Your task to perform on an android device: Open network settings Image 0: 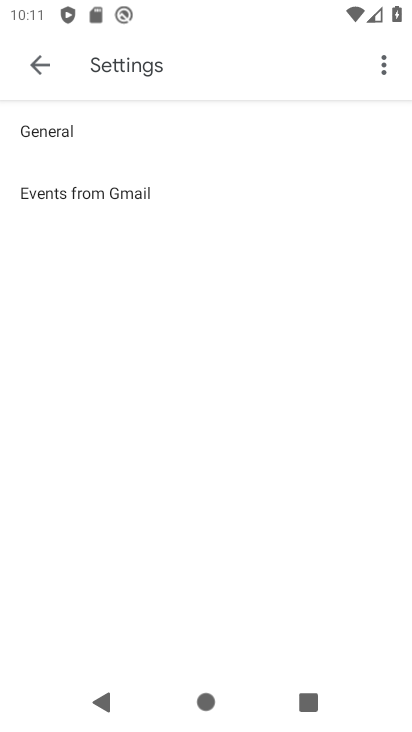
Step 0: press home button
Your task to perform on an android device: Open network settings Image 1: 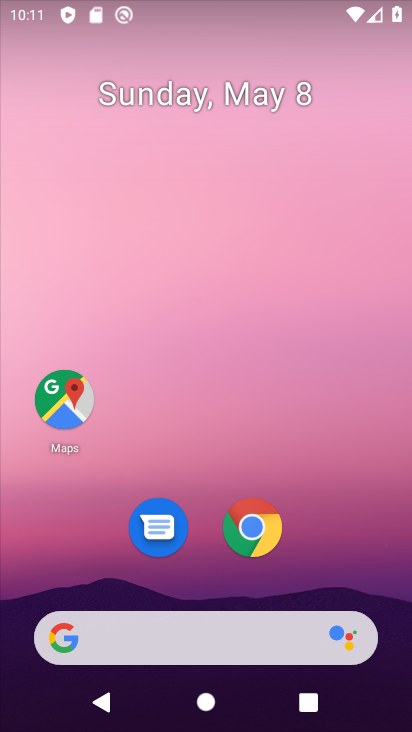
Step 1: drag from (314, 575) to (298, 112)
Your task to perform on an android device: Open network settings Image 2: 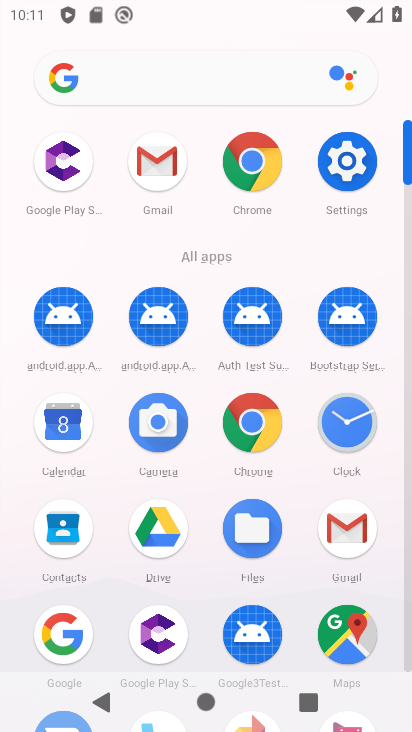
Step 2: click (367, 177)
Your task to perform on an android device: Open network settings Image 3: 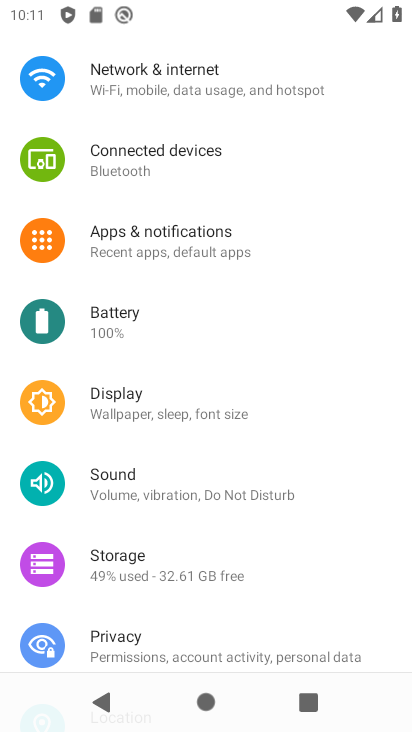
Step 3: click (237, 94)
Your task to perform on an android device: Open network settings Image 4: 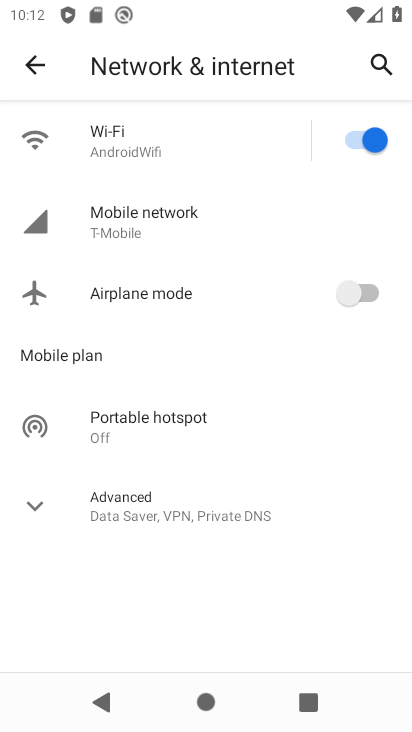
Step 4: task complete